Your task to perform on an android device: turn on translation in the chrome app Image 0: 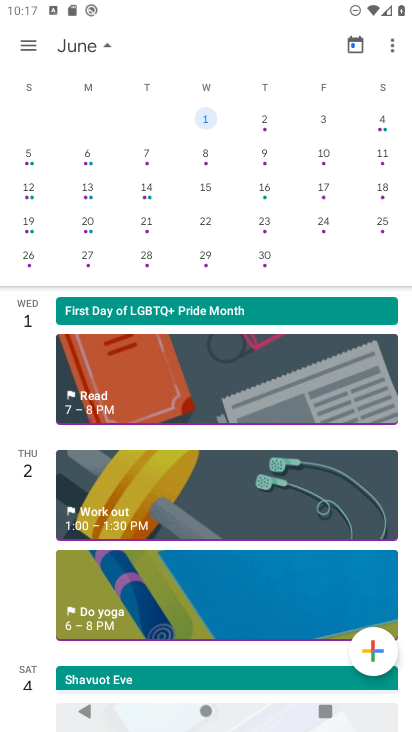
Step 0: press home button
Your task to perform on an android device: turn on translation in the chrome app Image 1: 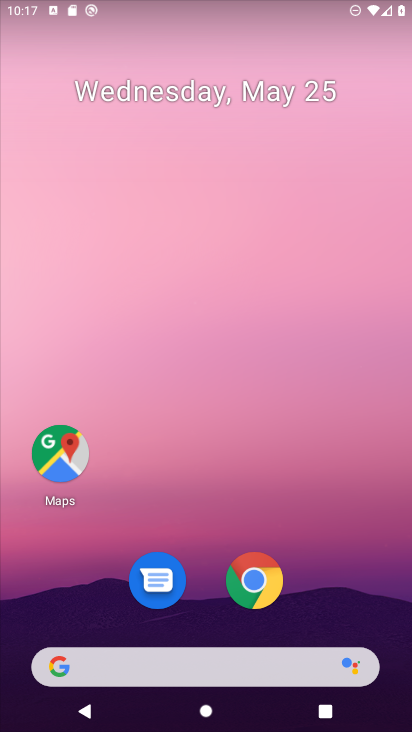
Step 1: click (245, 578)
Your task to perform on an android device: turn on translation in the chrome app Image 2: 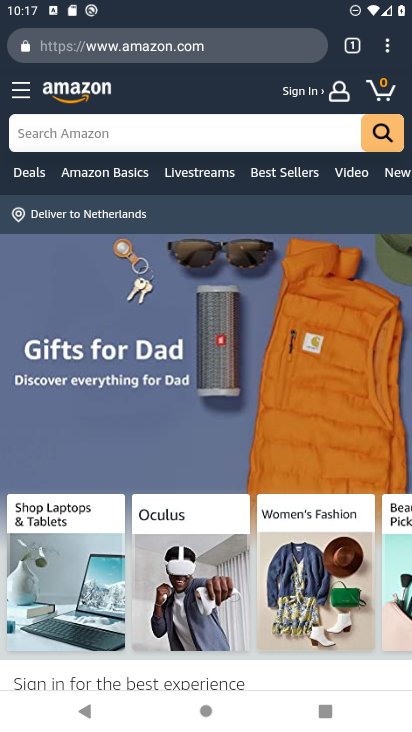
Step 2: click (383, 46)
Your task to perform on an android device: turn on translation in the chrome app Image 3: 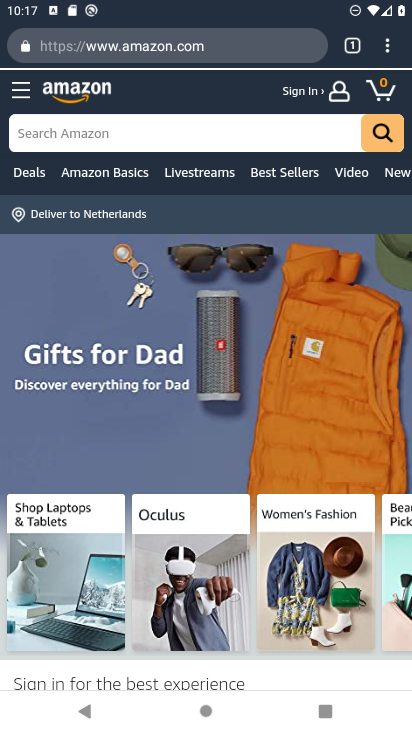
Step 3: click (384, 45)
Your task to perform on an android device: turn on translation in the chrome app Image 4: 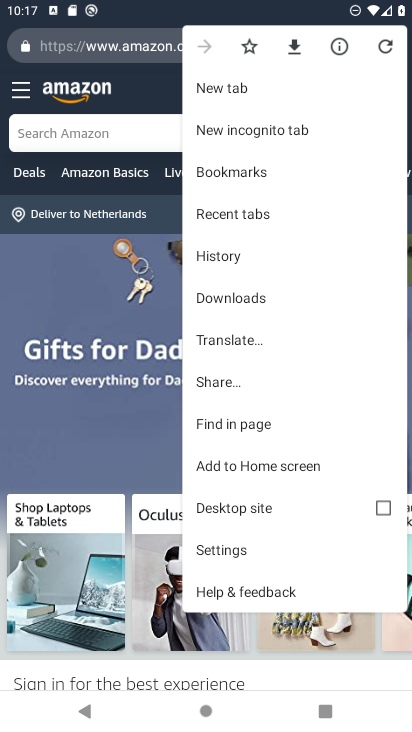
Step 4: click (223, 556)
Your task to perform on an android device: turn on translation in the chrome app Image 5: 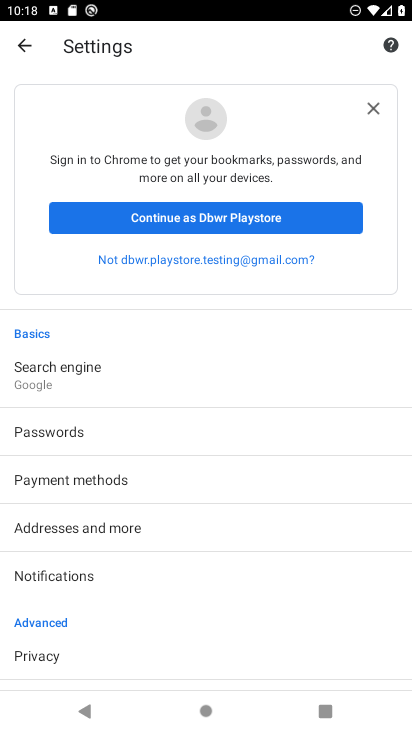
Step 5: drag from (3, 607) to (200, 123)
Your task to perform on an android device: turn on translation in the chrome app Image 6: 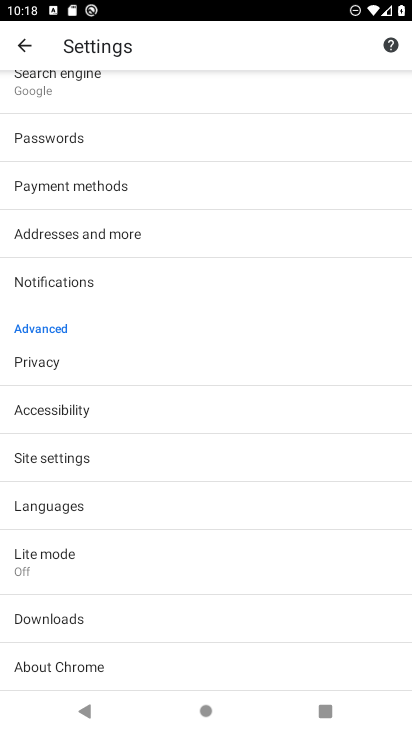
Step 6: click (53, 499)
Your task to perform on an android device: turn on translation in the chrome app Image 7: 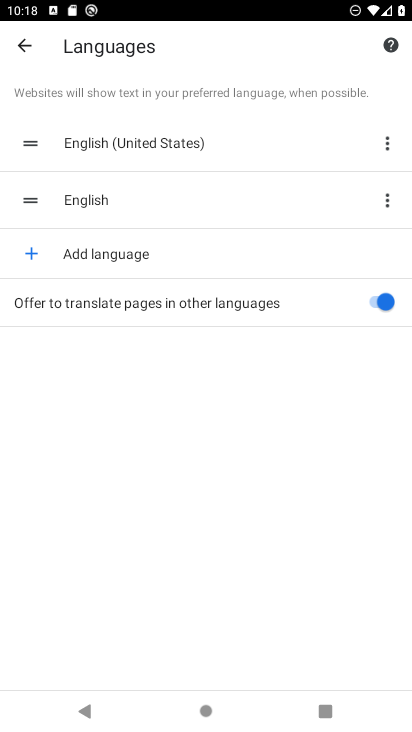
Step 7: task complete